Your task to perform on an android device: Open Google Maps and go to "Timeline" Image 0: 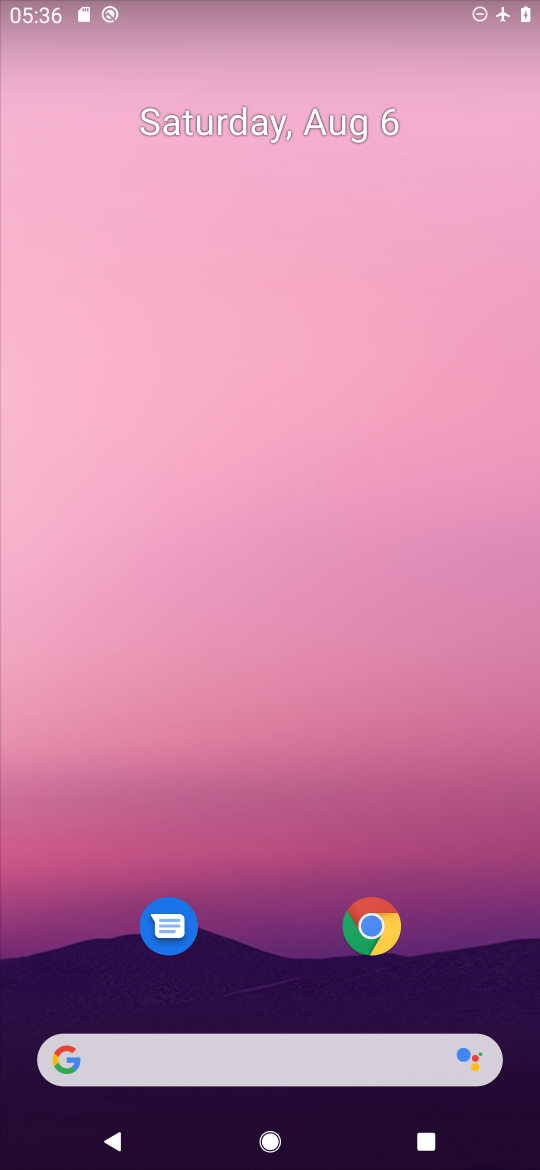
Step 0: drag from (258, 995) to (228, 418)
Your task to perform on an android device: Open Google Maps and go to "Timeline" Image 1: 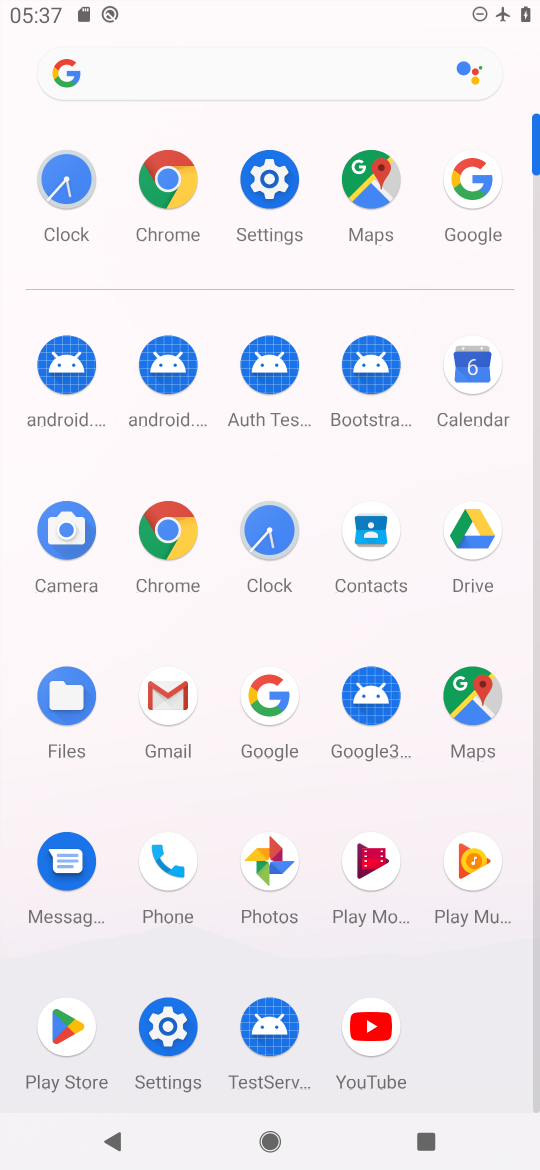
Step 1: click (456, 718)
Your task to perform on an android device: Open Google Maps and go to "Timeline" Image 2: 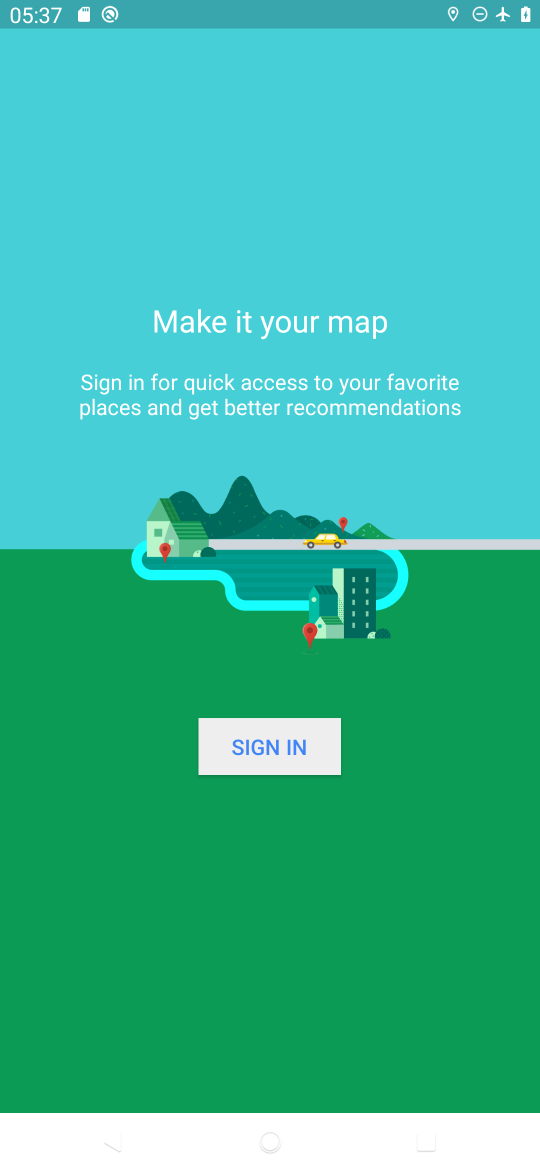
Step 2: task complete